Your task to perform on an android device: Open the calendar app, open the side menu, and click the "Day" option Image 0: 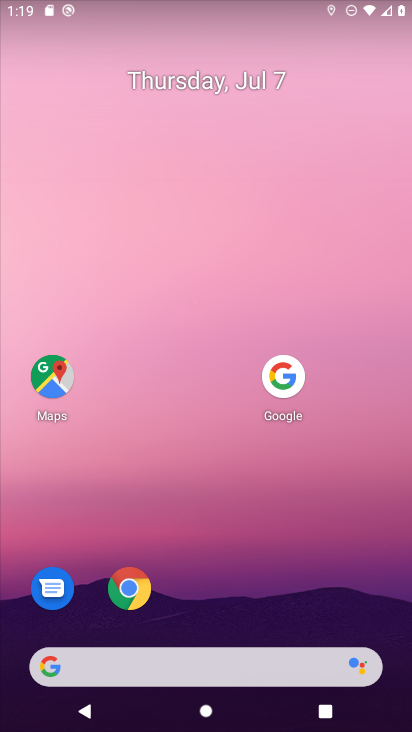
Step 0: drag from (200, 666) to (409, 148)
Your task to perform on an android device: Open the calendar app, open the side menu, and click the "Day" option Image 1: 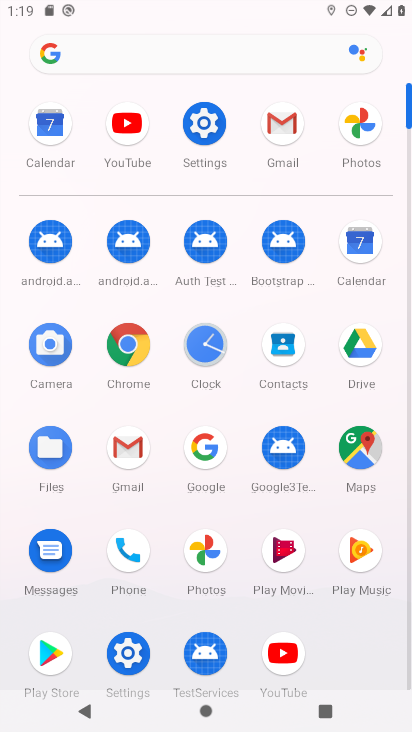
Step 1: click (367, 249)
Your task to perform on an android device: Open the calendar app, open the side menu, and click the "Day" option Image 2: 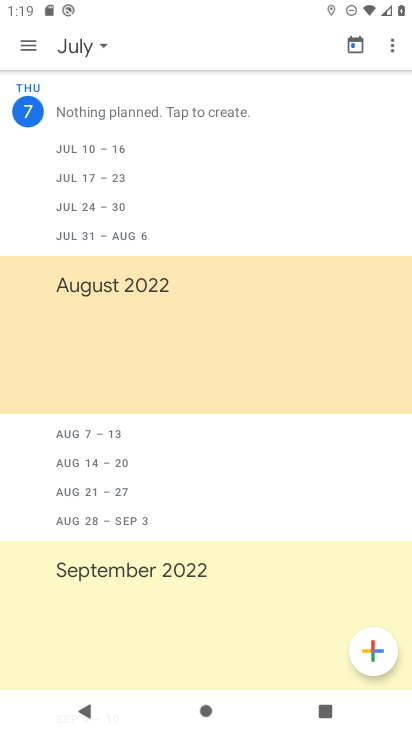
Step 2: click (29, 42)
Your task to perform on an android device: Open the calendar app, open the side menu, and click the "Day" option Image 3: 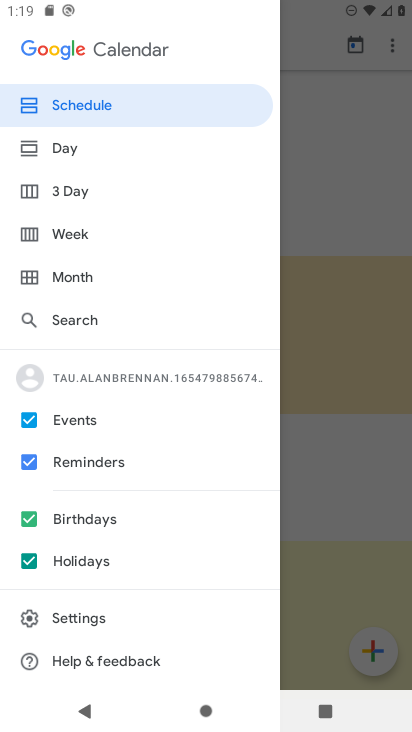
Step 3: click (63, 147)
Your task to perform on an android device: Open the calendar app, open the side menu, and click the "Day" option Image 4: 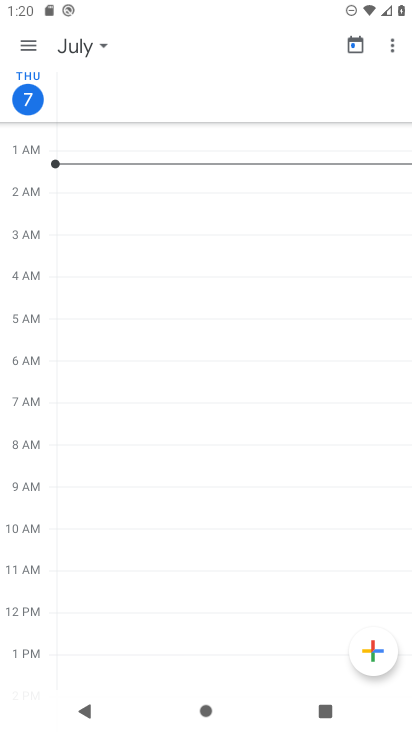
Step 4: task complete